Your task to perform on an android device: open a new tab in the chrome app Image 0: 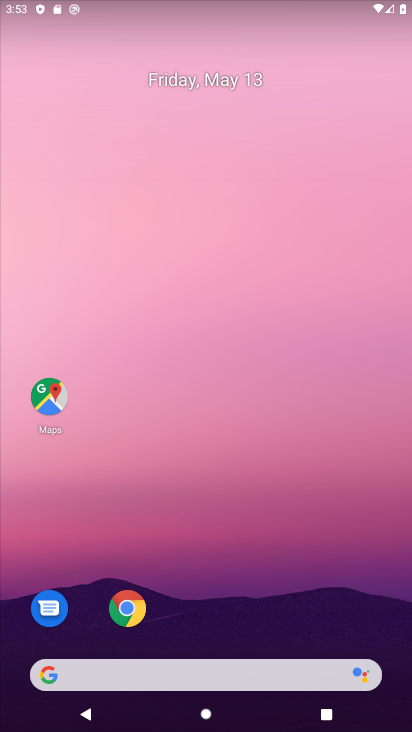
Step 0: click (318, 36)
Your task to perform on an android device: open a new tab in the chrome app Image 1: 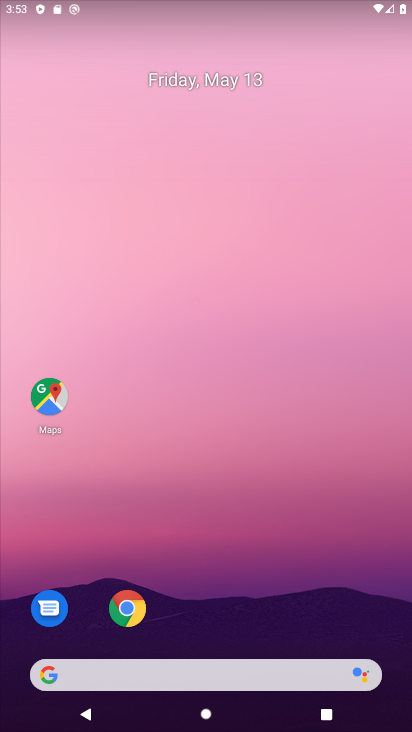
Step 1: drag from (228, 638) to (356, 0)
Your task to perform on an android device: open a new tab in the chrome app Image 2: 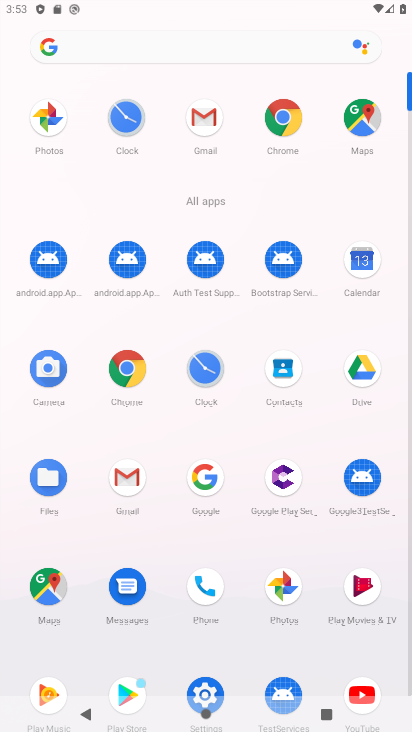
Step 2: click (133, 375)
Your task to perform on an android device: open a new tab in the chrome app Image 3: 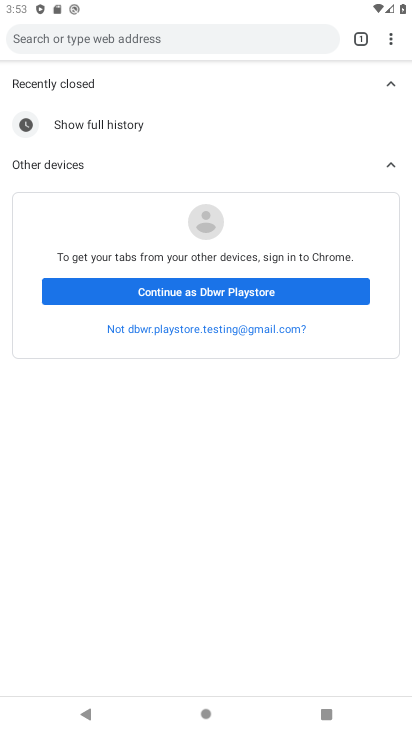
Step 3: click (391, 40)
Your task to perform on an android device: open a new tab in the chrome app Image 4: 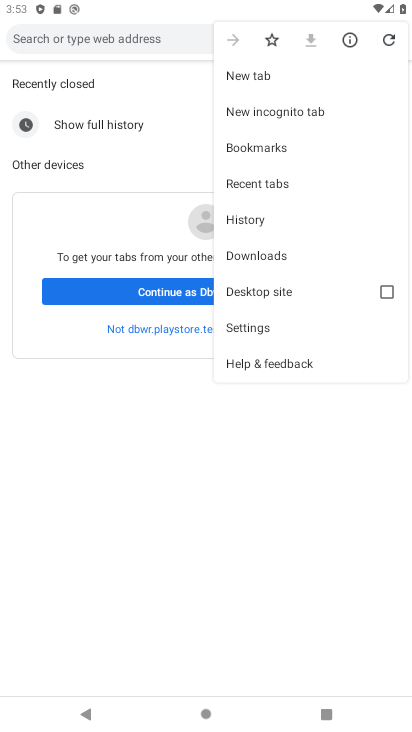
Step 4: click (286, 80)
Your task to perform on an android device: open a new tab in the chrome app Image 5: 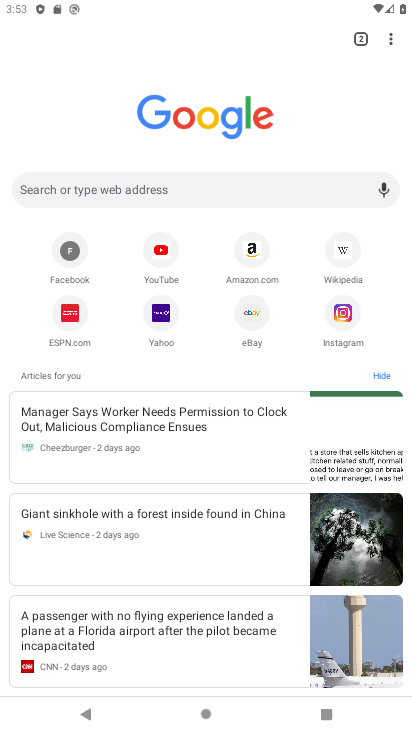
Step 5: task complete